Your task to perform on an android device: What's the weather going to be this weekend? Image 0: 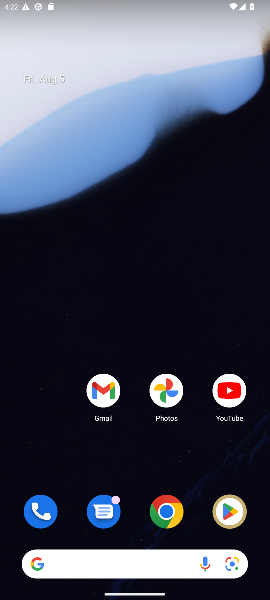
Step 0: drag from (139, 543) to (128, 58)
Your task to perform on an android device: What's the weather going to be this weekend? Image 1: 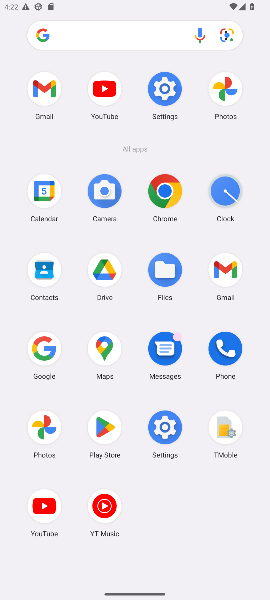
Step 1: click (42, 348)
Your task to perform on an android device: What's the weather going to be this weekend? Image 2: 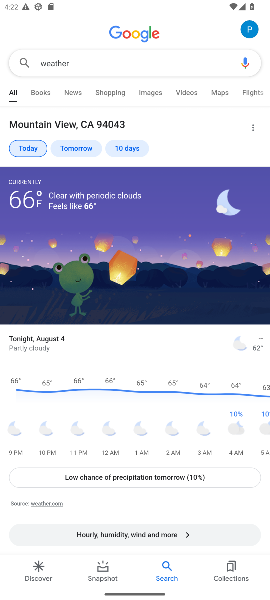
Step 2: click (118, 147)
Your task to perform on an android device: What's the weather going to be this weekend? Image 3: 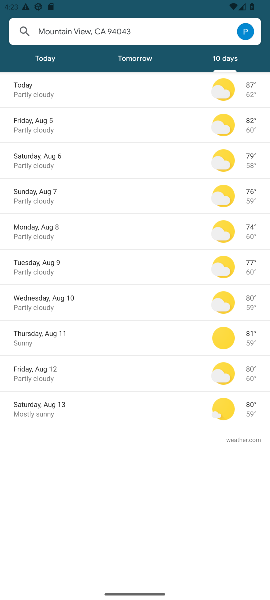
Step 3: task complete